Your task to perform on an android device: change your default location settings in chrome Image 0: 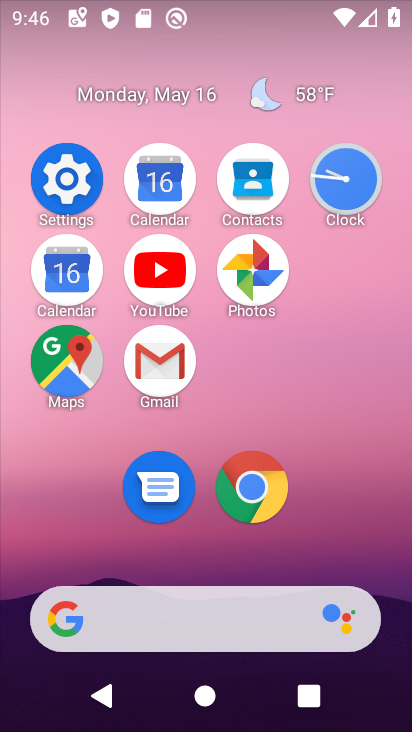
Step 0: click (241, 520)
Your task to perform on an android device: change your default location settings in chrome Image 1: 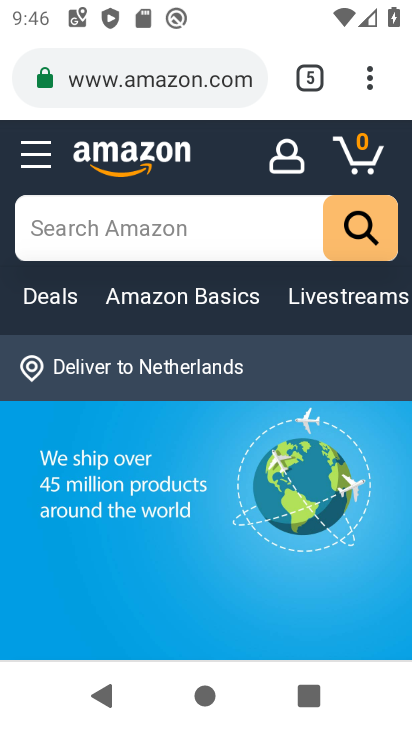
Step 1: click (379, 73)
Your task to perform on an android device: change your default location settings in chrome Image 2: 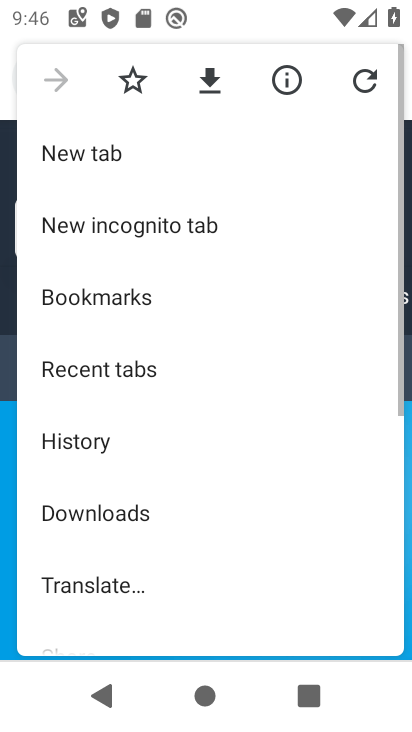
Step 2: drag from (102, 593) to (162, 89)
Your task to perform on an android device: change your default location settings in chrome Image 3: 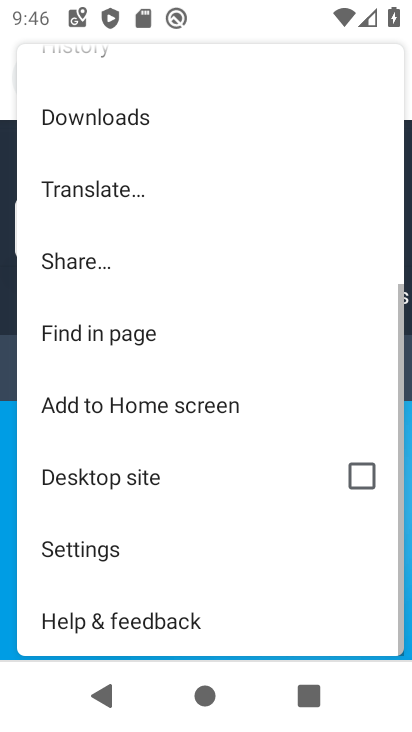
Step 3: click (73, 558)
Your task to perform on an android device: change your default location settings in chrome Image 4: 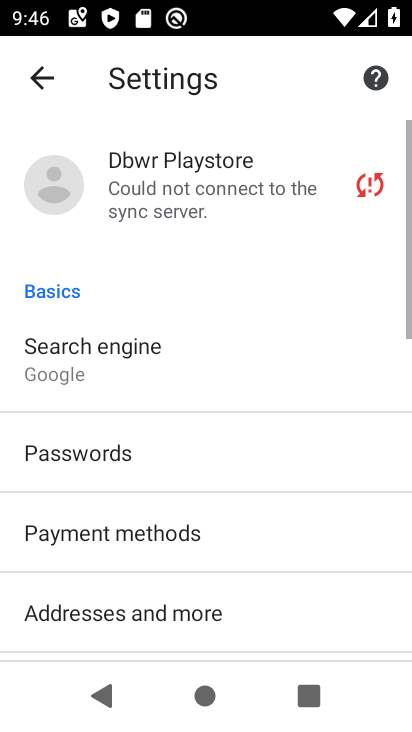
Step 4: drag from (75, 489) to (152, 65)
Your task to perform on an android device: change your default location settings in chrome Image 5: 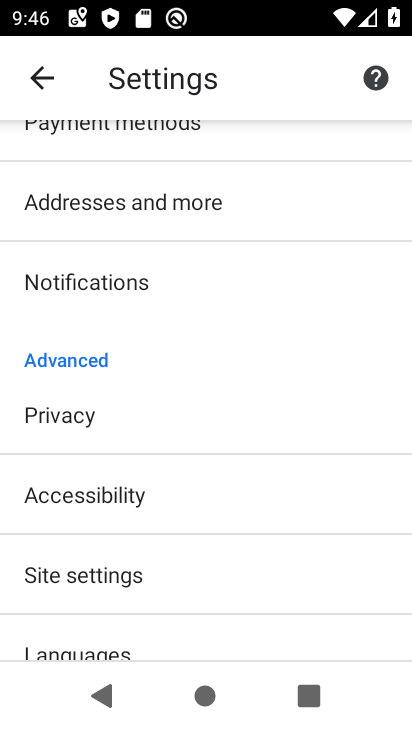
Step 5: drag from (91, 614) to (162, 214)
Your task to perform on an android device: change your default location settings in chrome Image 6: 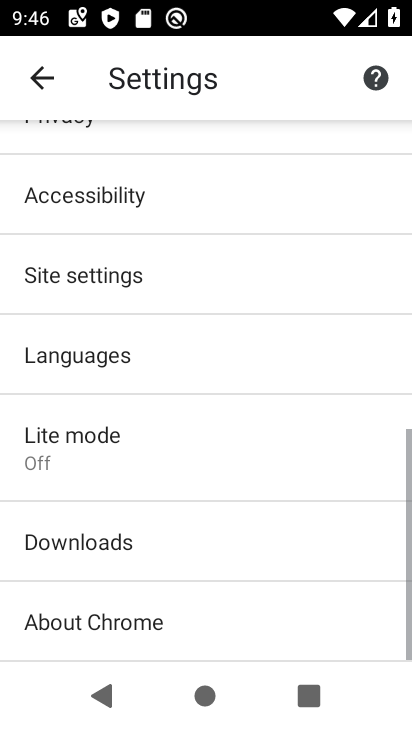
Step 6: click (106, 274)
Your task to perform on an android device: change your default location settings in chrome Image 7: 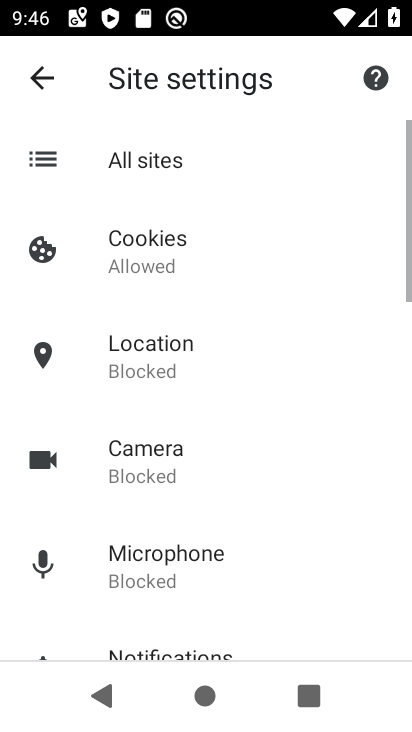
Step 7: click (156, 377)
Your task to perform on an android device: change your default location settings in chrome Image 8: 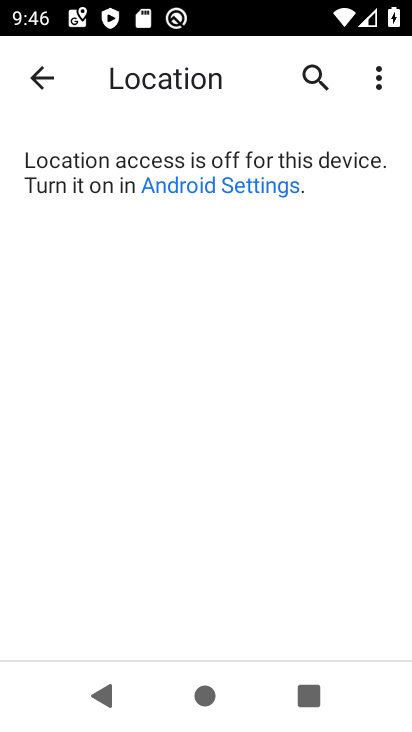
Step 8: click (278, 184)
Your task to perform on an android device: change your default location settings in chrome Image 9: 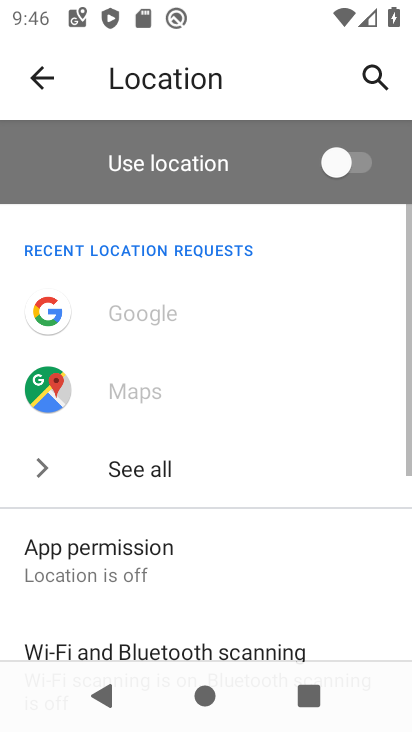
Step 9: click (339, 166)
Your task to perform on an android device: change your default location settings in chrome Image 10: 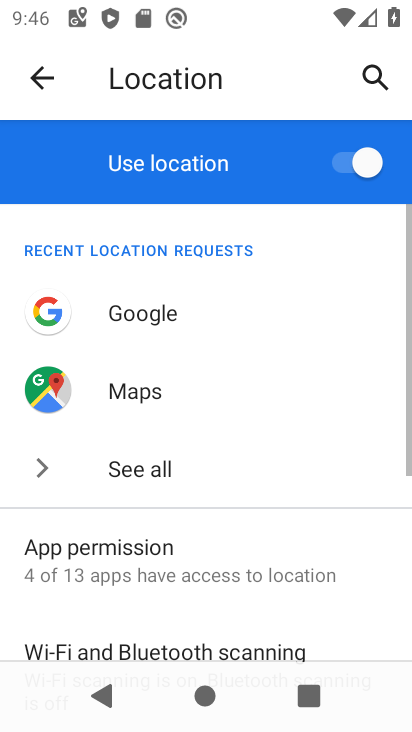
Step 10: task complete